Your task to perform on an android device: move a message to another label in the gmail app Image 0: 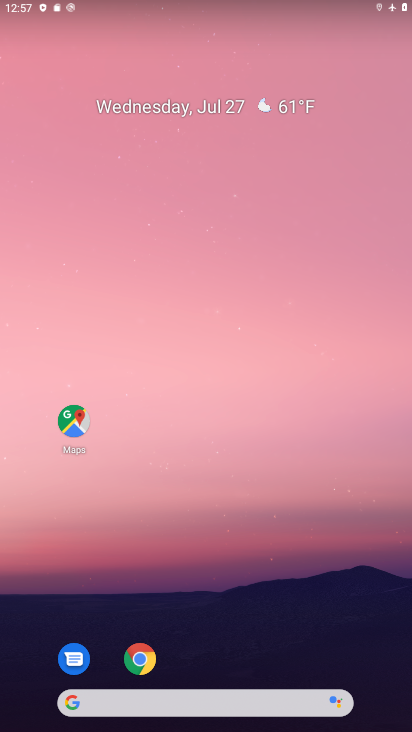
Step 0: drag from (203, 677) to (206, 153)
Your task to perform on an android device: move a message to another label in the gmail app Image 1: 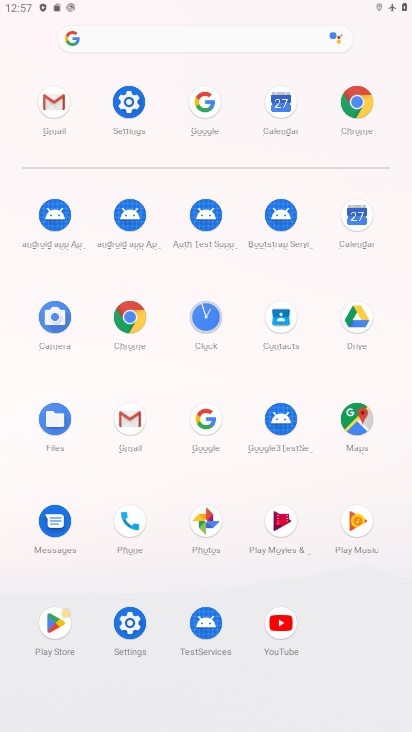
Step 1: click (59, 105)
Your task to perform on an android device: move a message to another label in the gmail app Image 2: 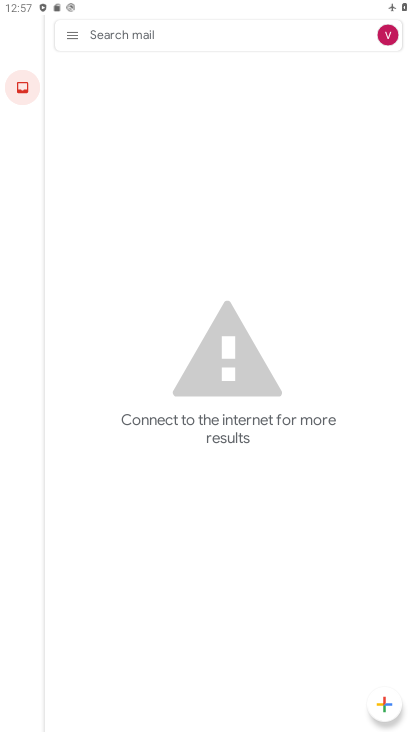
Step 2: click (69, 37)
Your task to perform on an android device: move a message to another label in the gmail app Image 3: 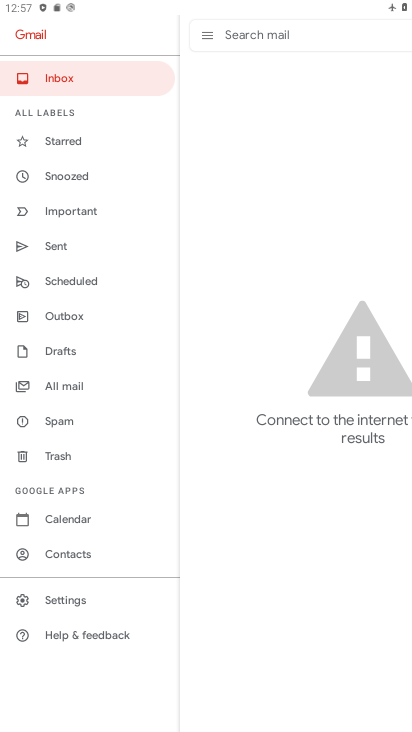
Step 3: click (86, 385)
Your task to perform on an android device: move a message to another label in the gmail app Image 4: 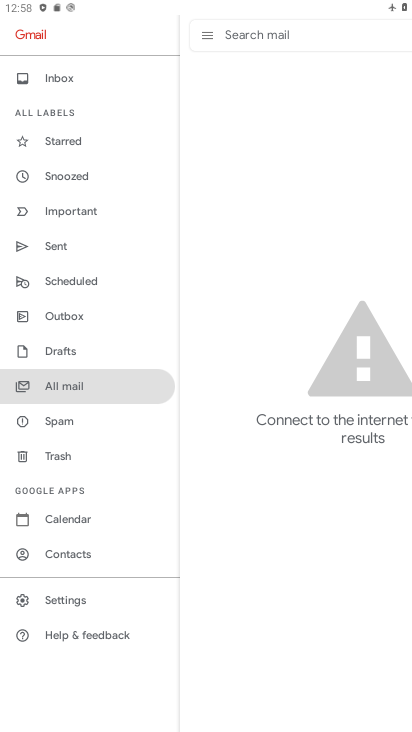
Step 4: task complete